Your task to perform on an android device: turn off notifications settings in the gmail app Image 0: 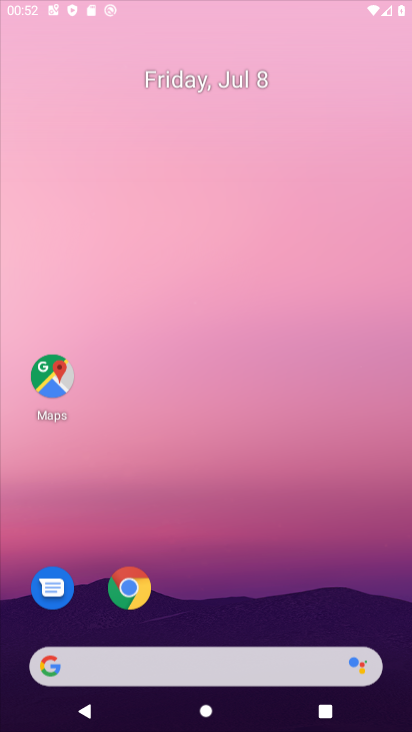
Step 0: click (258, 6)
Your task to perform on an android device: turn off notifications settings in the gmail app Image 1: 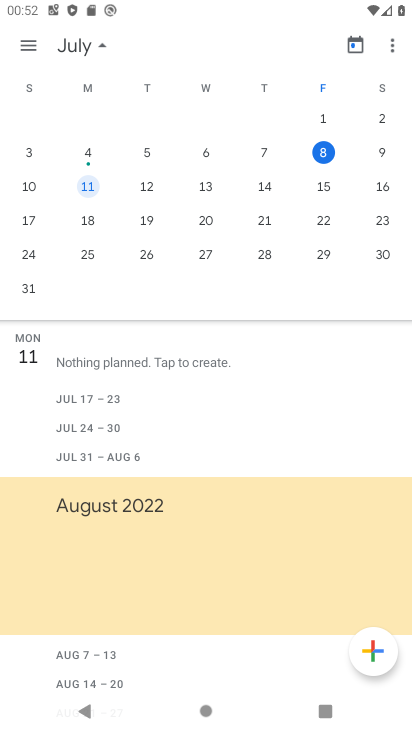
Step 1: press home button
Your task to perform on an android device: turn off notifications settings in the gmail app Image 2: 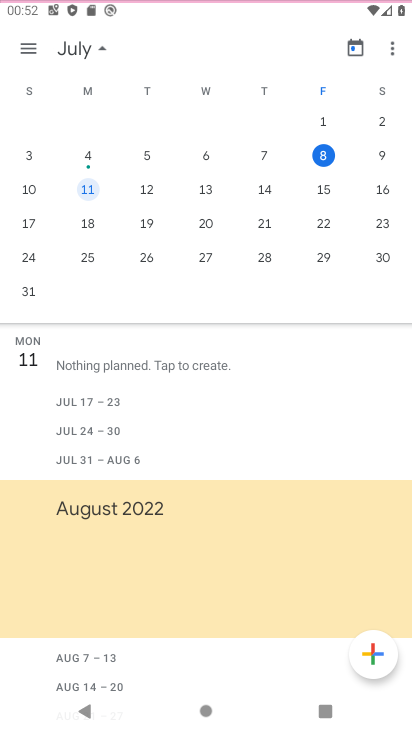
Step 2: drag from (183, 582) to (245, 15)
Your task to perform on an android device: turn off notifications settings in the gmail app Image 3: 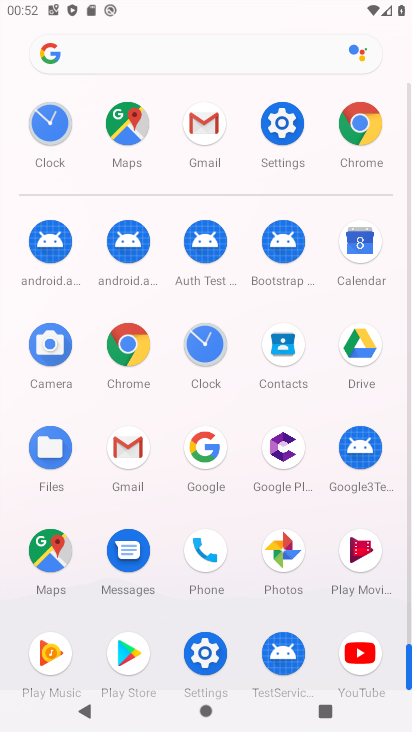
Step 3: click (192, 130)
Your task to perform on an android device: turn off notifications settings in the gmail app Image 4: 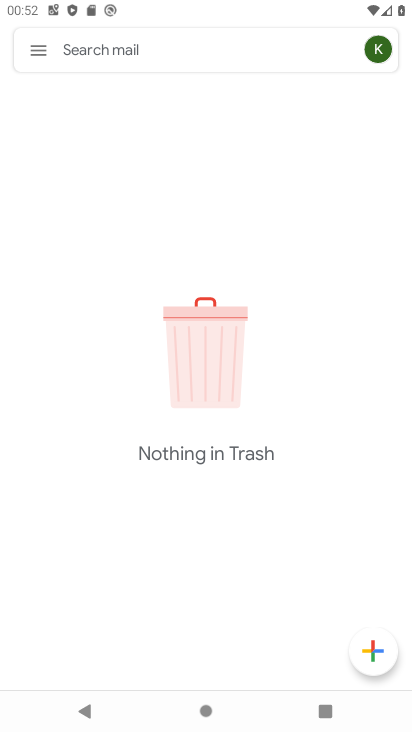
Step 4: drag from (191, 602) to (212, 226)
Your task to perform on an android device: turn off notifications settings in the gmail app Image 5: 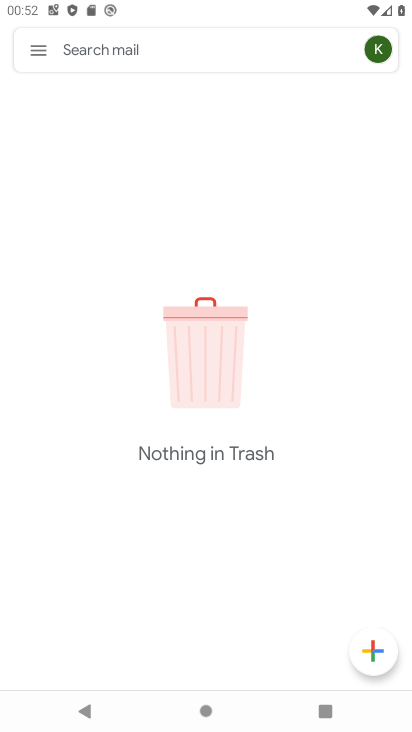
Step 5: click (37, 49)
Your task to perform on an android device: turn off notifications settings in the gmail app Image 6: 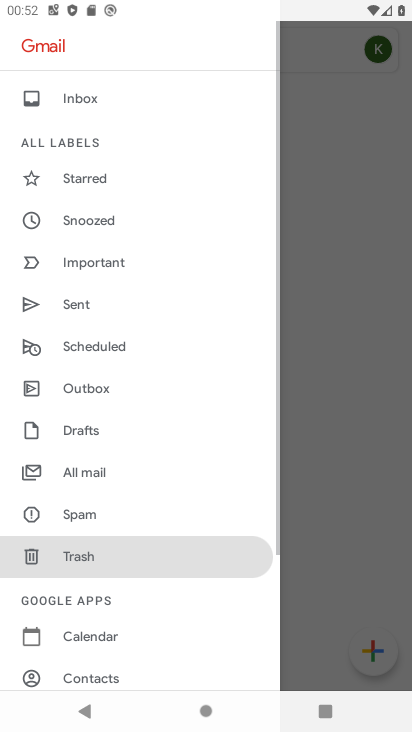
Step 6: drag from (77, 607) to (104, 208)
Your task to perform on an android device: turn off notifications settings in the gmail app Image 7: 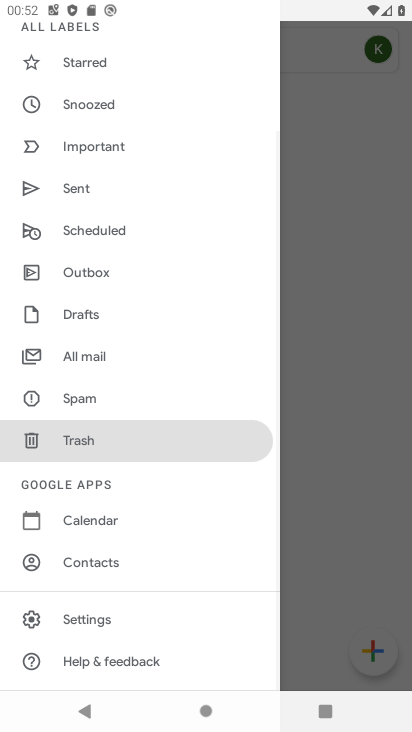
Step 7: click (77, 609)
Your task to perform on an android device: turn off notifications settings in the gmail app Image 8: 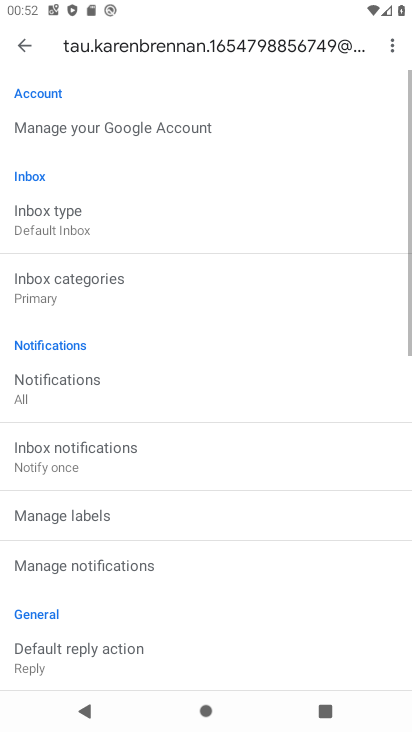
Step 8: drag from (137, 540) to (197, 142)
Your task to perform on an android device: turn off notifications settings in the gmail app Image 9: 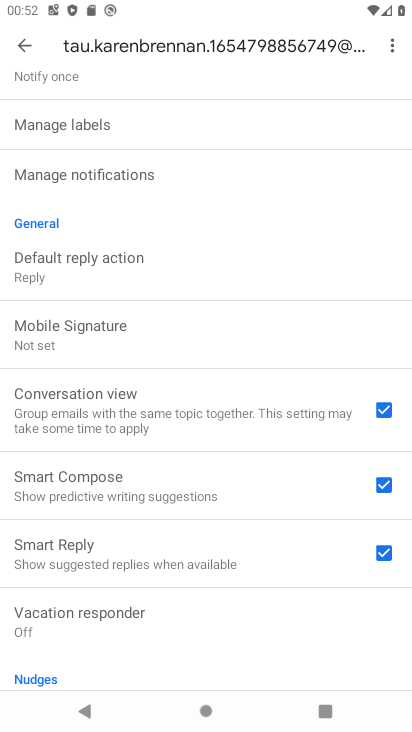
Step 9: click (86, 167)
Your task to perform on an android device: turn off notifications settings in the gmail app Image 10: 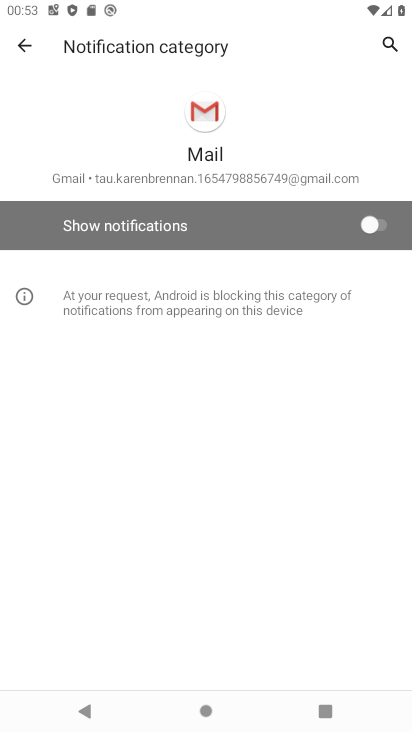
Step 10: task complete